Your task to perform on an android device: set default search engine in the chrome app Image 0: 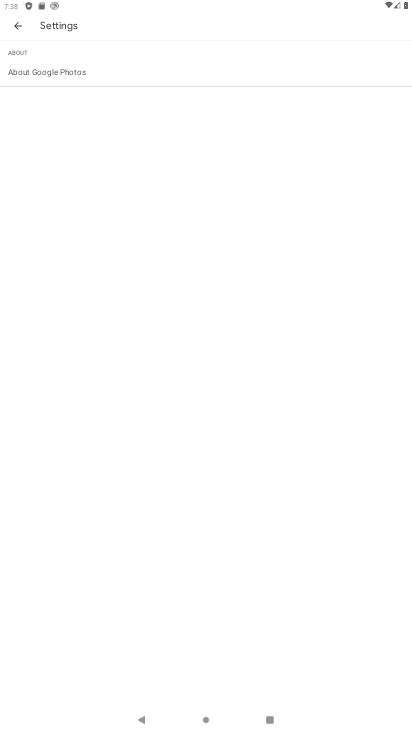
Step 0: press home button
Your task to perform on an android device: set default search engine in the chrome app Image 1: 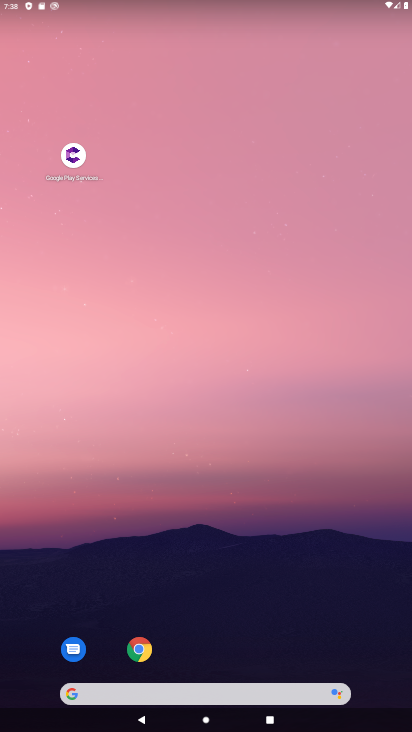
Step 1: click (150, 660)
Your task to perform on an android device: set default search engine in the chrome app Image 2: 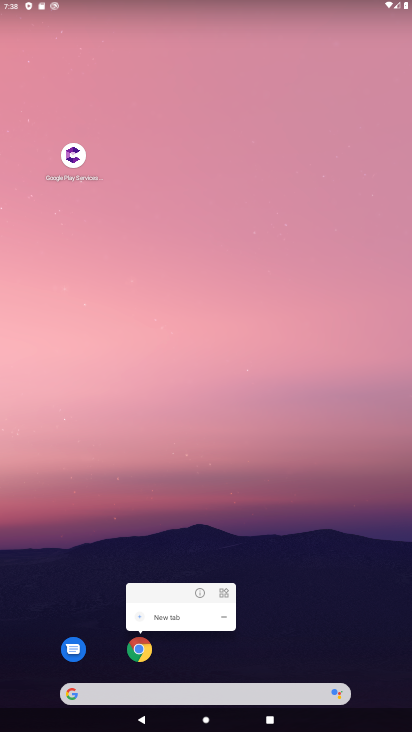
Step 2: click (143, 655)
Your task to perform on an android device: set default search engine in the chrome app Image 3: 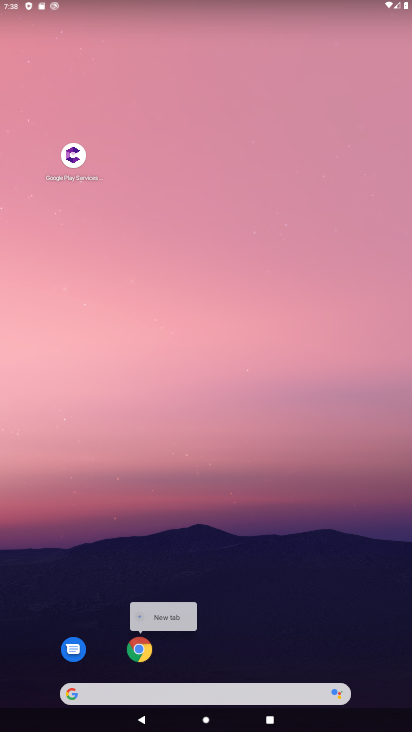
Step 3: click (143, 655)
Your task to perform on an android device: set default search engine in the chrome app Image 4: 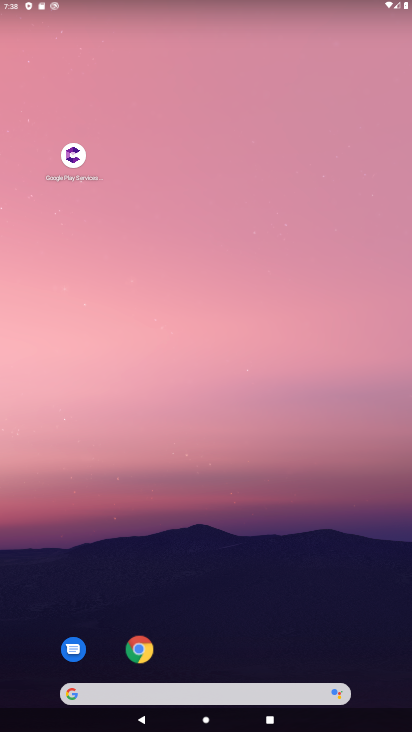
Step 4: click (143, 655)
Your task to perform on an android device: set default search engine in the chrome app Image 5: 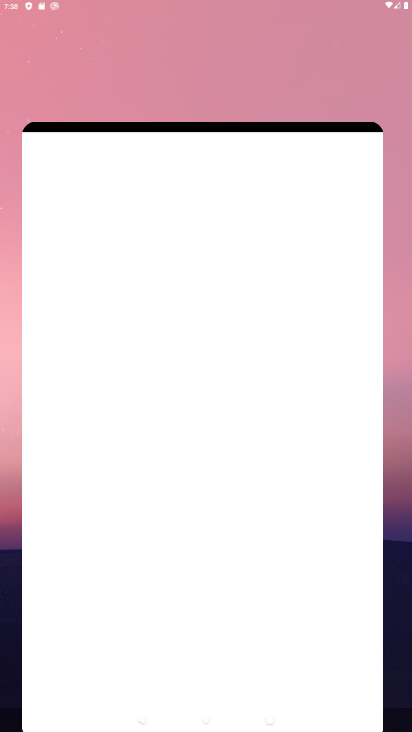
Step 5: click (143, 655)
Your task to perform on an android device: set default search engine in the chrome app Image 6: 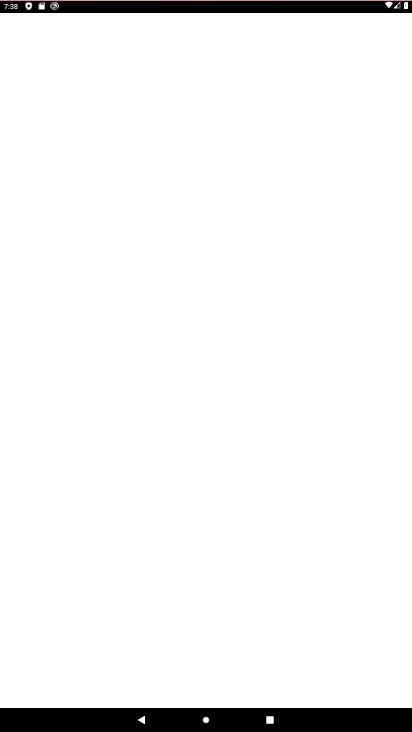
Step 6: click (143, 655)
Your task to perform on an android device: set default search engine in the chrome app Image 7: 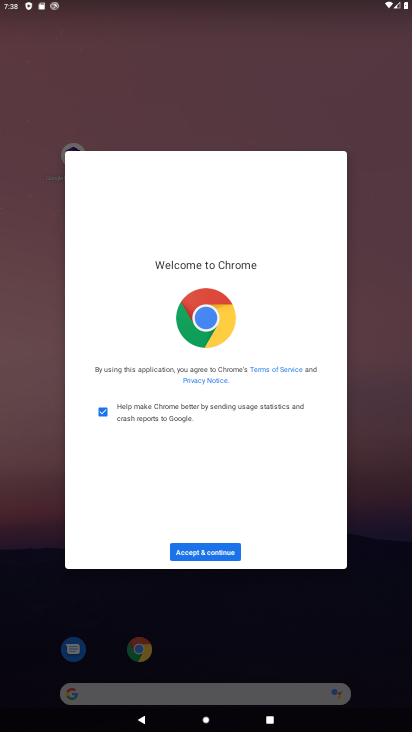
Step 7: click (212, 550)
Your task to perform on an android device: set default search engine in the chrome app Image 8: 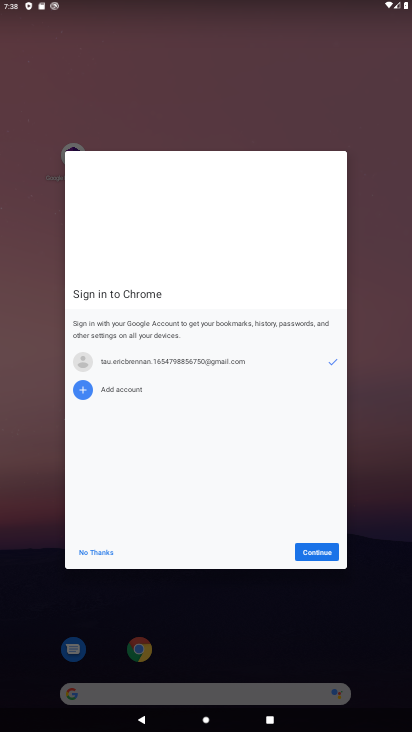
Step 8: click (305, 551)
Your task to perform on an android device: set default search engine in the chrome app Image 9: 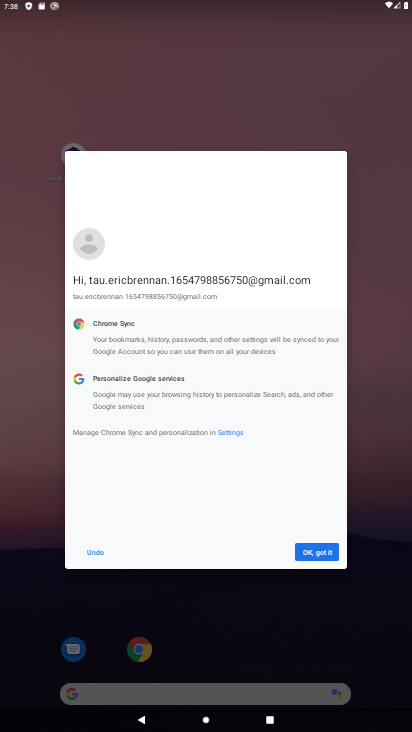
Step 9: click (305, 551)
Your task to perform on an android device: set default search engine in the chrome app Image 10: 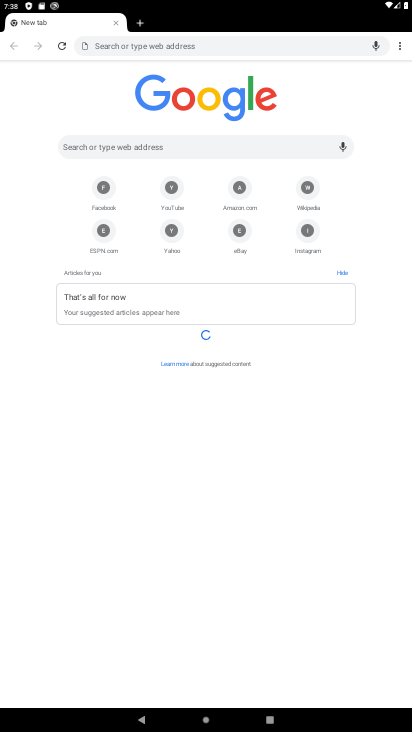
Step 10: click (402, 40)
Your task to perform on an android device: set default search engine in the chrome app Image 11: 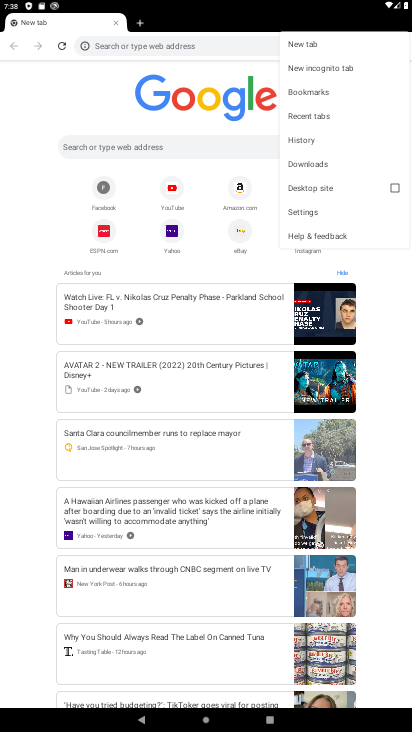
Step 11: click (306, 219)
Your task to perform on an android device: set default search engine in the chrome app Image 12: 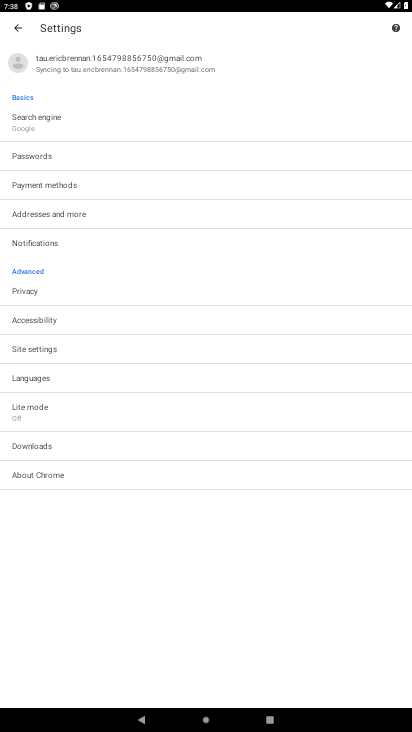
Step 12: click (26, 127)
Your task to perform on an android device: set default search engine in the chrome app Image 13: 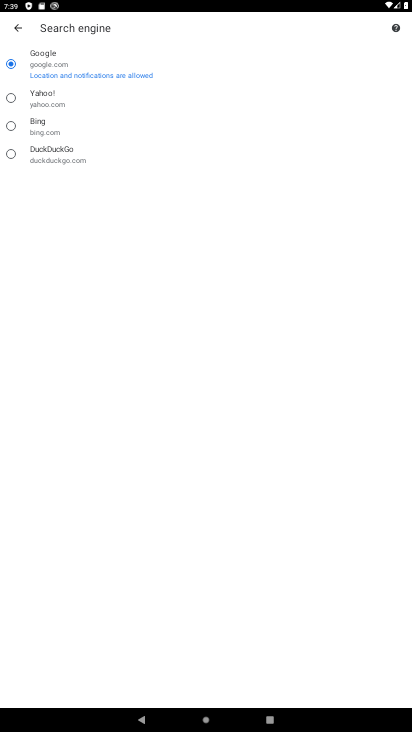
Step 13: task complete